Your task to perform on an android device: Open Google Maps Image 0: 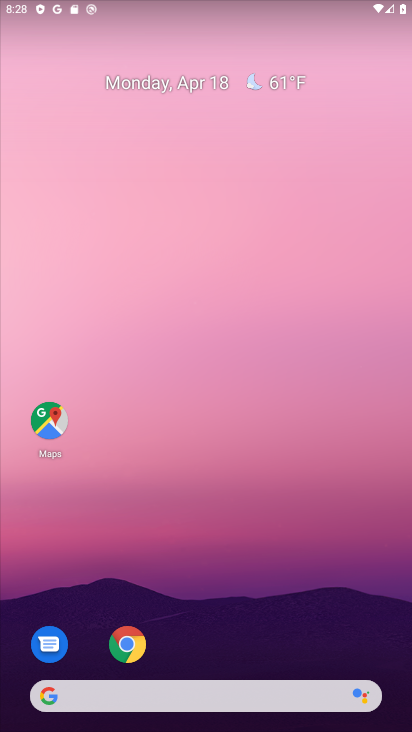
Step 0: click (57, 417)
Your task to perform on an android device: Open Google Maps Image 1: 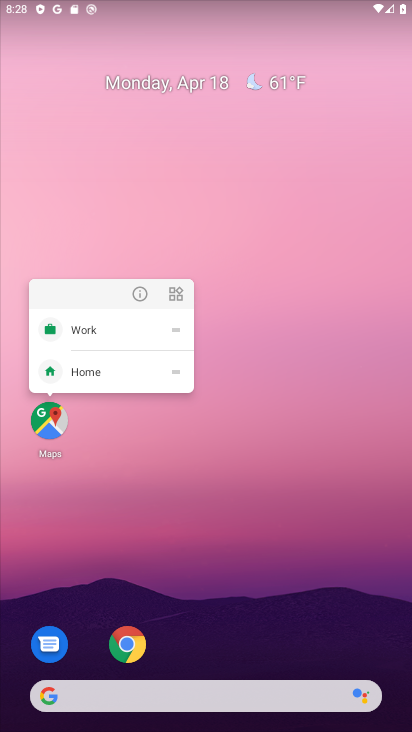
Step 1: click (57, 417)
Your task to perform on an android device: Open Google Maps Image 2: 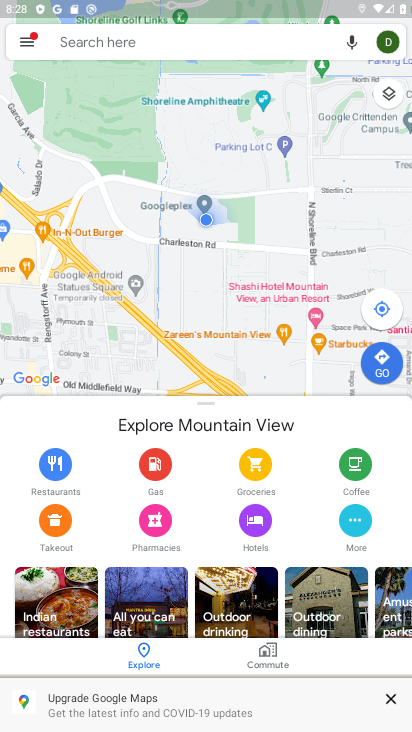
Step 2: task complete